Your task to perform on an android device: Do I have any events today? Image 0: 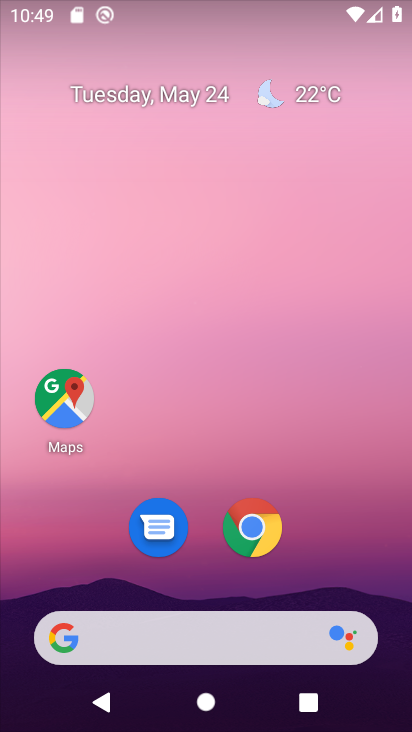
Step 0: press home button
Your task to perform on an android device: Do I have any events today? Image 1: 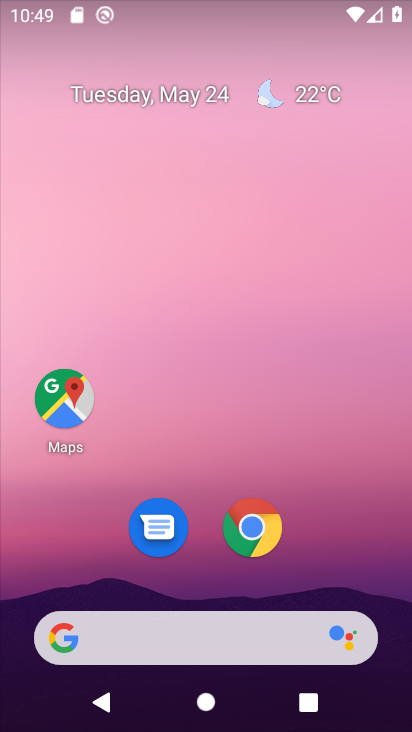
Step 1: drag from (147, 632) to (304, 152)
Your task to perform on an android device: Do I have any events today? Image 2: 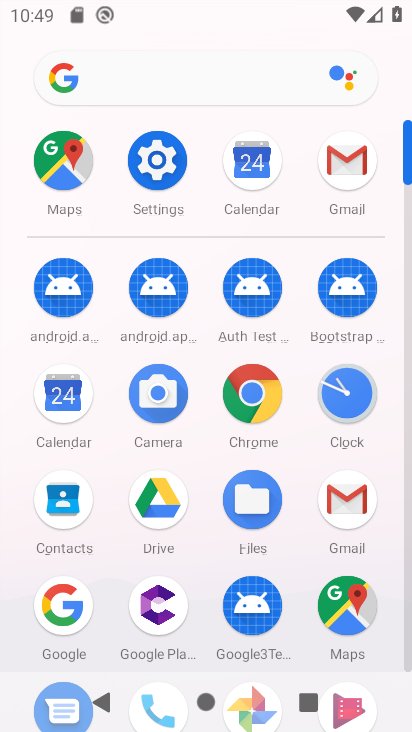
Step 2: click (247, 171)
Your task to perform on an android device: Do I have any events today? Image 3: 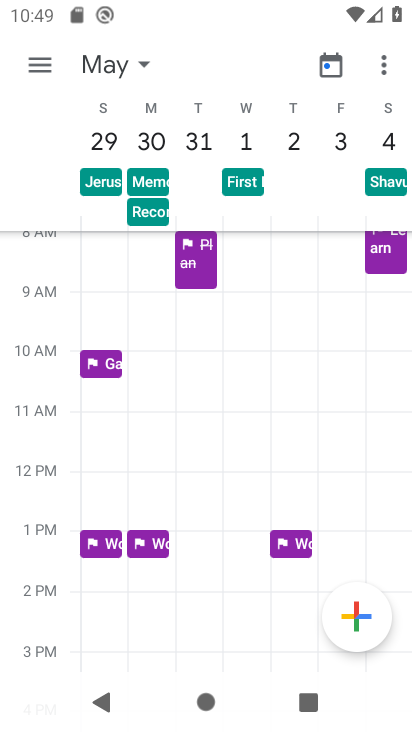
Step 3: click (104, 63)
Your task to perform on an android device: Do I have any events today? Image 4: 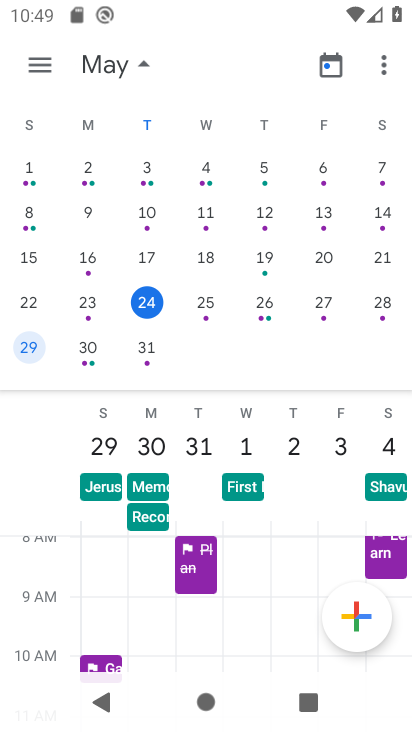
Step 4: click (156, 301)
Your task to perform on an android device: Do I have any events today? Image 5: 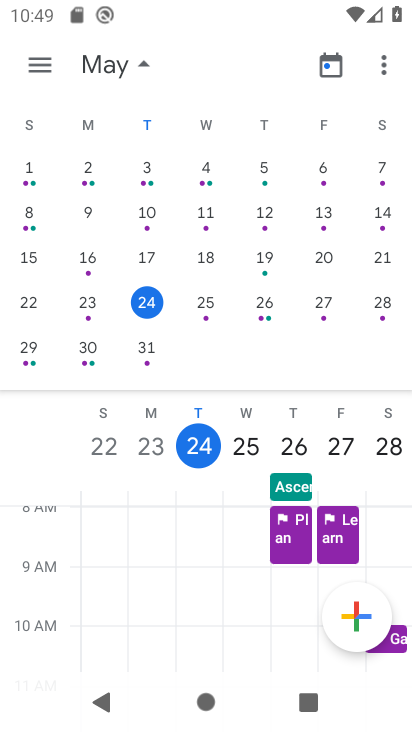
Step 5: click (47, 60)
Your task to perform on an android device: Do I have any events today? Image 6: 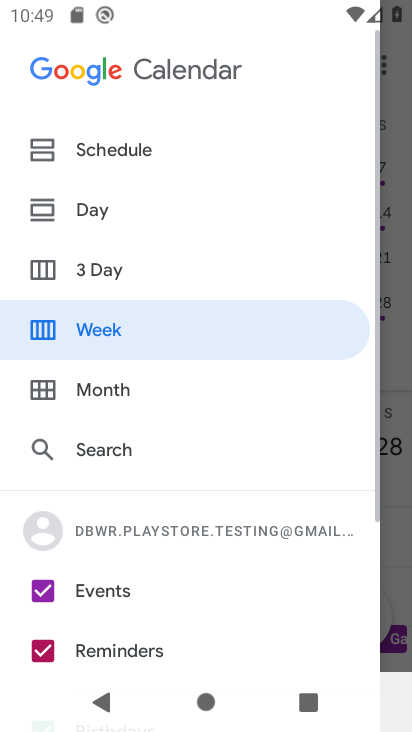
Step 6: click (96, 209)
Your task to perform on an android device: Do I have any events today? Image 7: 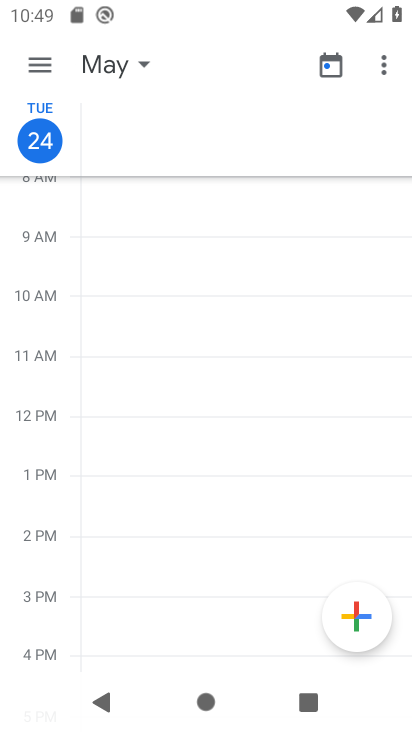
Step 7: click (43, 60)
Your task to perform on an android device: Do I have any events today? Image 8: 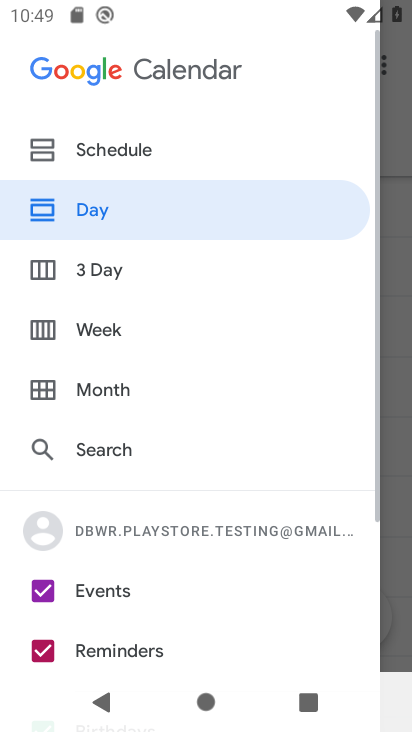
Step 8: click (110, 155)
Your task to perform on an android device: Do I have any events today? Image 9: 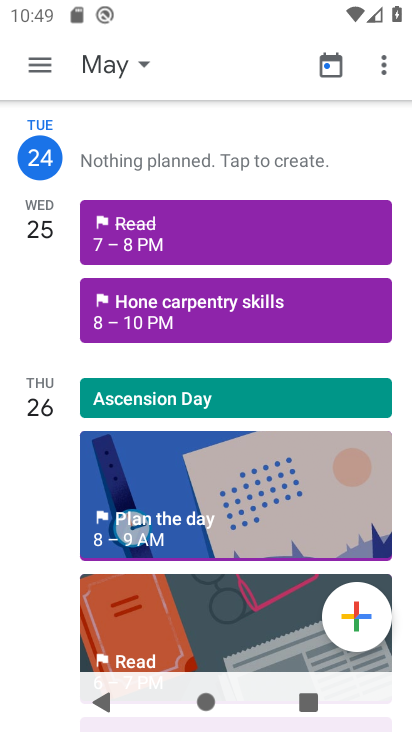
Step 9: task complete